Your task to perform on an android device: turn smart compose on in the gmail app Image 0: 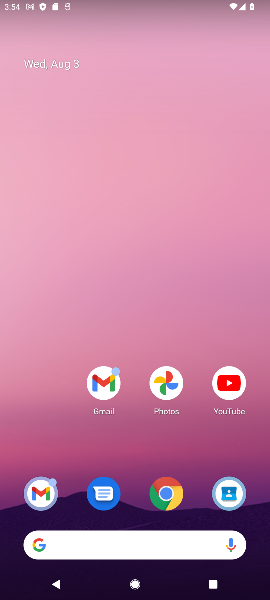
Step 0: press home button
Your task to perform on an android device: turn smart compose on in the gmail app Image 1: 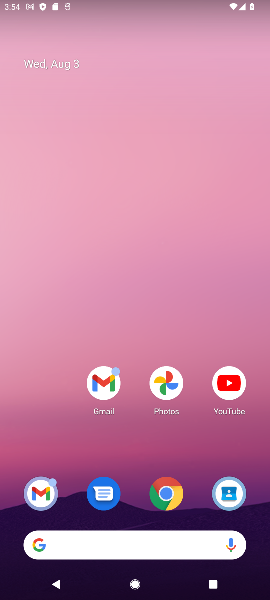
Step 1: drag from (40, 442) to (39, 105)
Your task to perform on an android device: turn smart compose on in the gmail app Image 2: 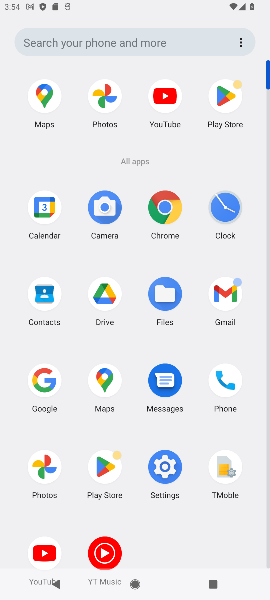
Step 2: click (222, 290)
Your task to perform on an android device: turn smart compose on in the gmail app Image 3: 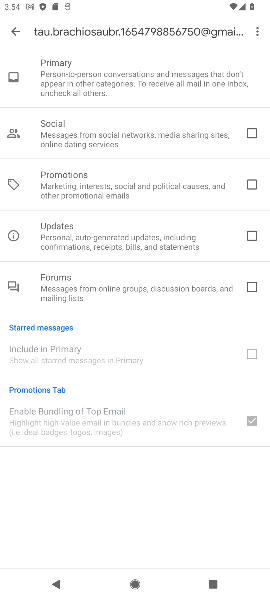
Step 3: task complete